Your task to perform on an android device: Open the calendar app, open the side menu, and click the "Day" option Image 0: 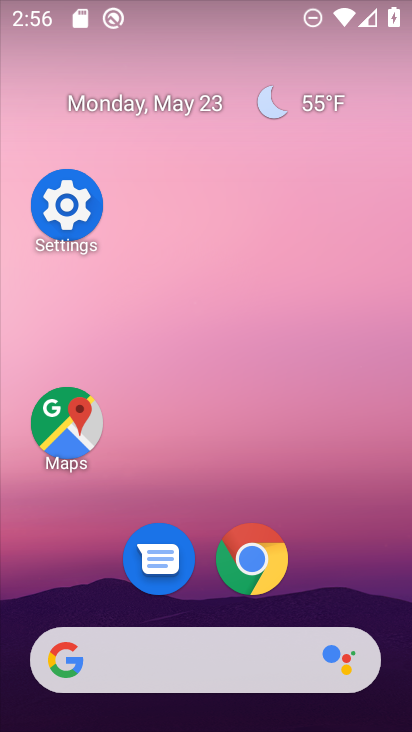
Step 0: drag from (344, 582) to (335, 103)
Your task to perform on an android device: Open the calendar app, open the side menu, and click the "Day" option Image 1: 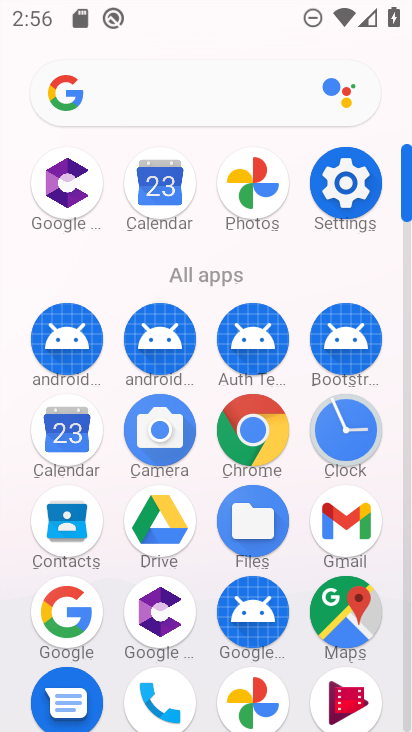
Step 1: click (166, 190)
Your task to perform on an android device: Open the calendar app, open the side menu, and click the "Day" option Image 2: 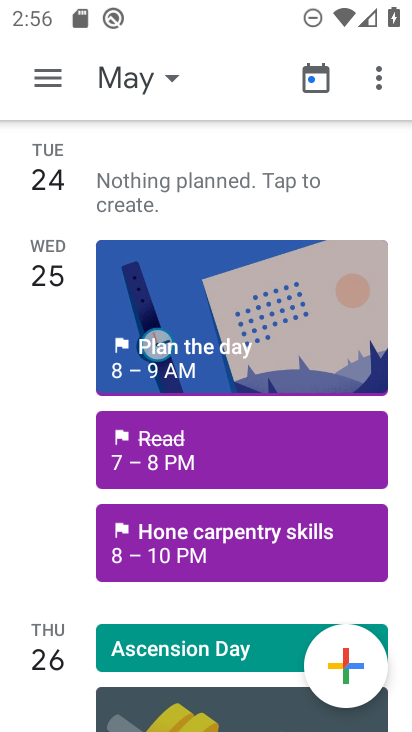
Step 2: click (63, 103)
Your task to perform on an android device: Open the calendar app, open the side menu, and click the "Day" option Image 3: 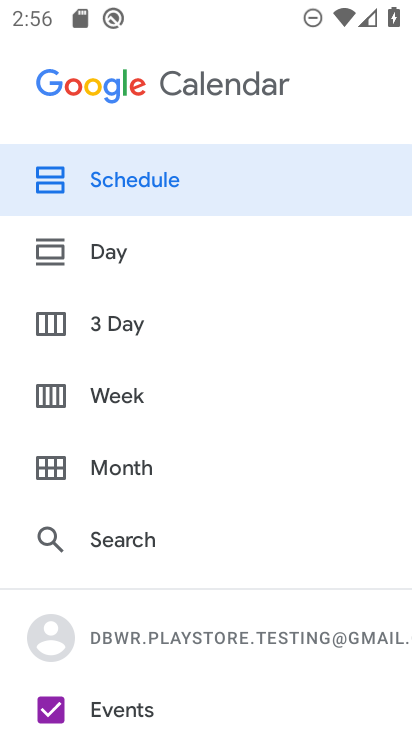
Step 3: click (135, 248)
Your task to perform on an android device: Open the calendar app, open the side menu, and click the "Day" option Image 4: 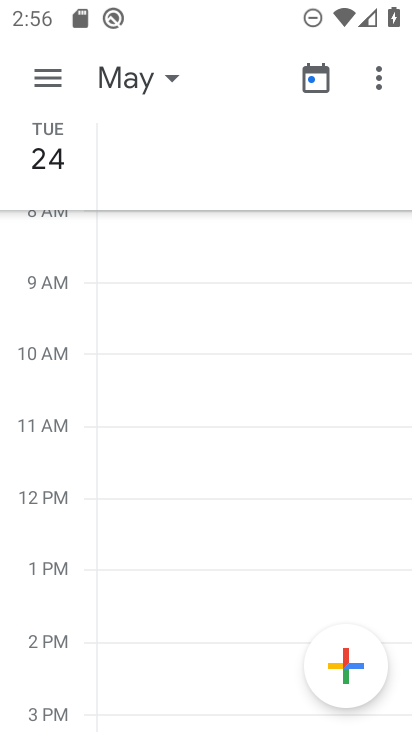
Step 4: task complete